Your task to perform on an android device: turn off smart reply in the gmail app Image 0: 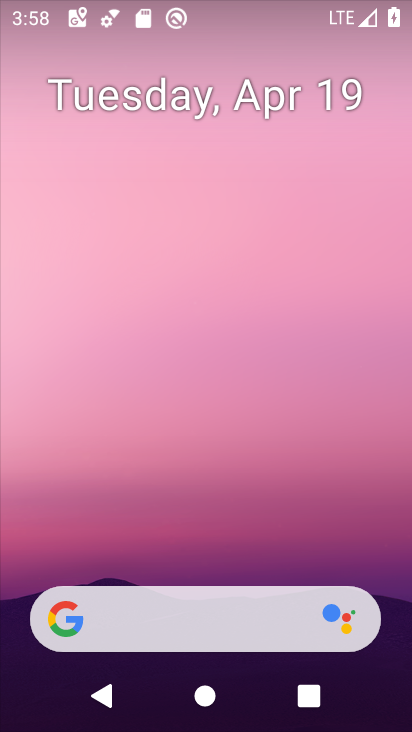
Step 0: drag from (226, 539) to (264, 179)
Your task to perform on an android device: turn off smart reply in the gmail app Image 1: 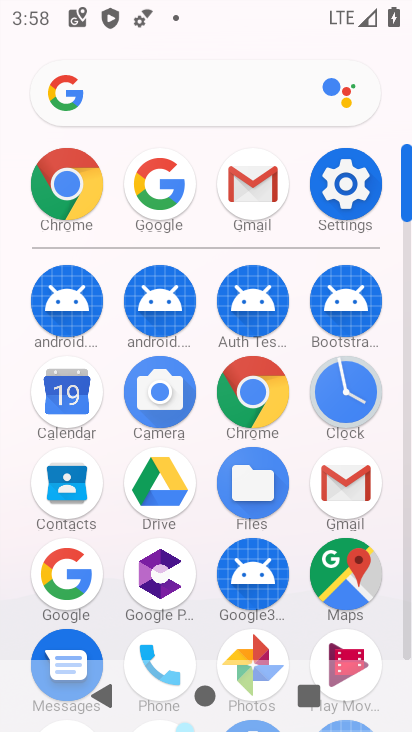
Step 1: click (252, 189)
Your task to perform on an android device: turn off smart reply in the gmail app Image 2: 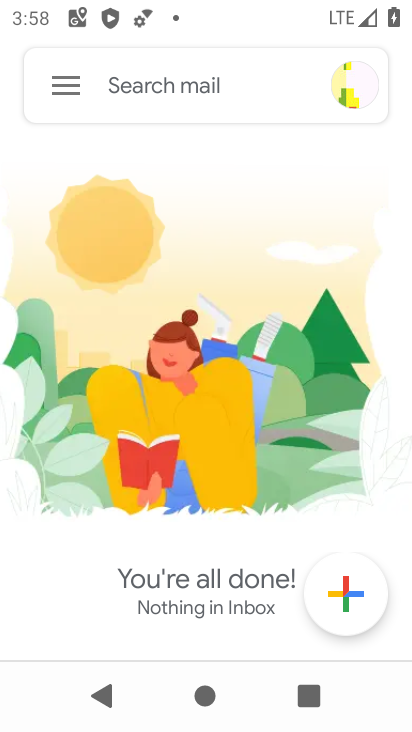
Step 2: click (67, 80)
Your task to perform on an android device: turn off smart reply in the gmail app Image 3: 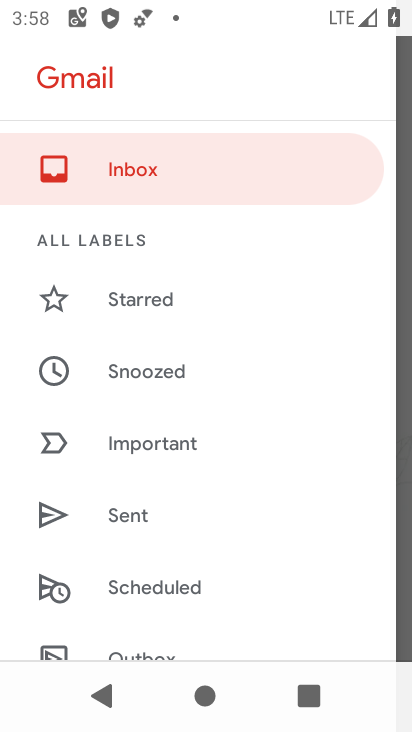
Step 3: drag from (191, 536) to (231, 349)
Your task to perform on an android device: turn off smart reply in the gmail app Image 4: 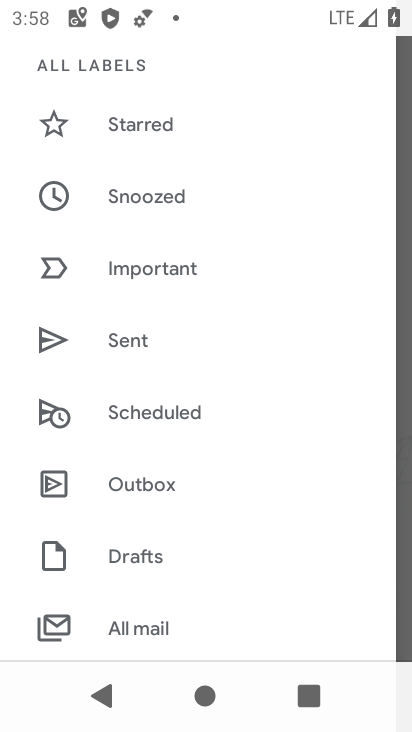
Step 4: drag from (167, 522) to (211, 420)
Your task to perform on an android device: turn off smart reply in the gmail app Image 5: 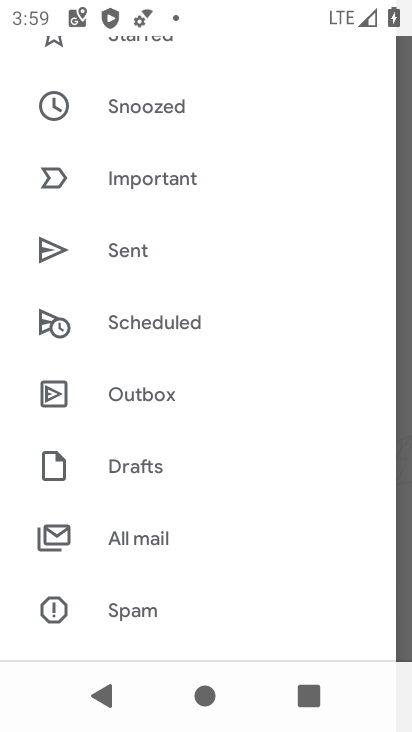
Step 5: drag from (156, 512) to (203, 400)
Your task to perform on an android device: turn off smart reply in the gmail app Image 6: 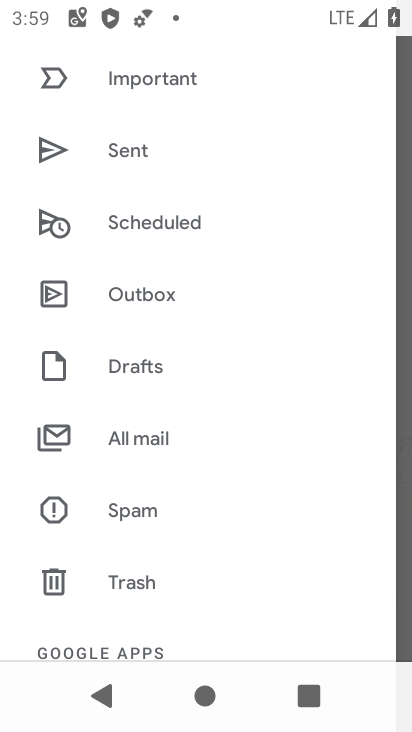
Step 6: drag from (140, 497) to (194, 418)
Your task to perform on an android device: turn off smart reply in the gmail app Image 7: 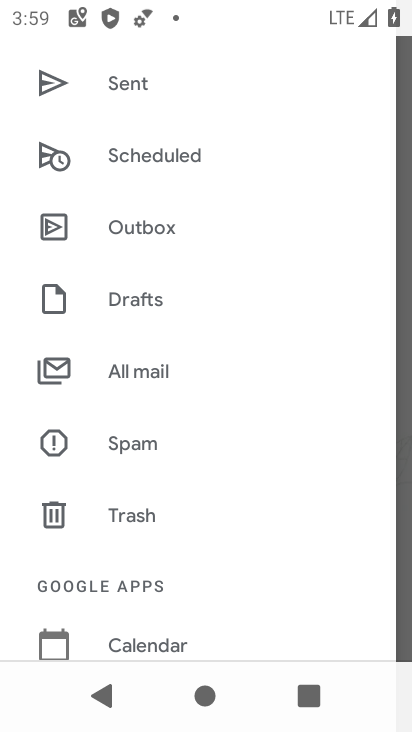
Step 7: drag from (138, 482) to (189, 409)
Your task to perform on an android device: turn off smart reply in the gmail app Image 8: 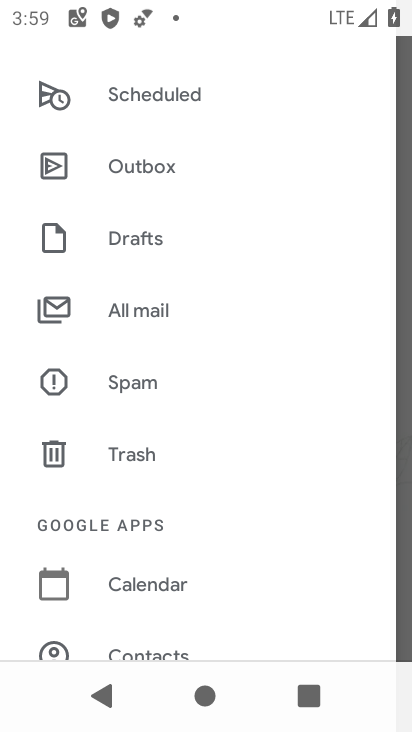
Step 8: drag from (125, 486) to (200, 392)
Your task to perform on an android device: turn off smart reply in the gmail app Image 9: 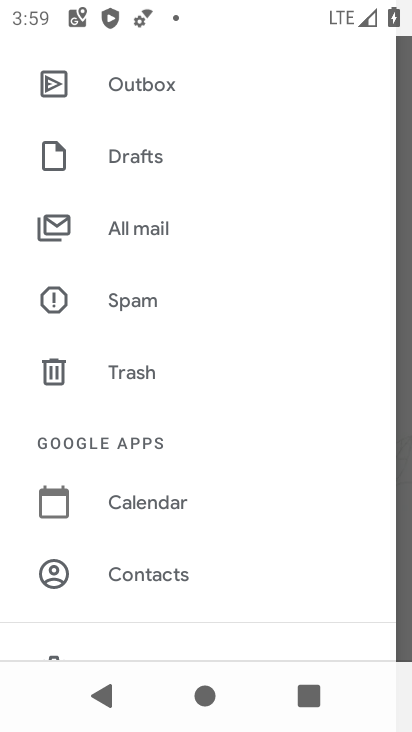
Step 9: drag from (150, 471) to (215, 399)
Your task to perform on an android device: turn off smart reply in the gmail app Image 10: 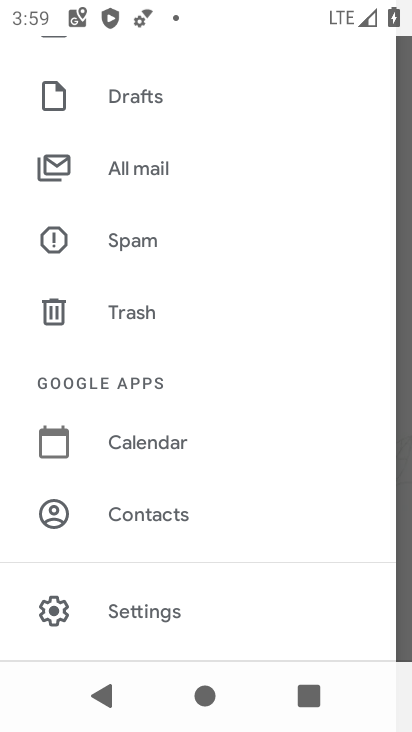
Step 10: click (140, 616)
Your task to perform on an android device: turn off smart reply in the gmail app Image 11: 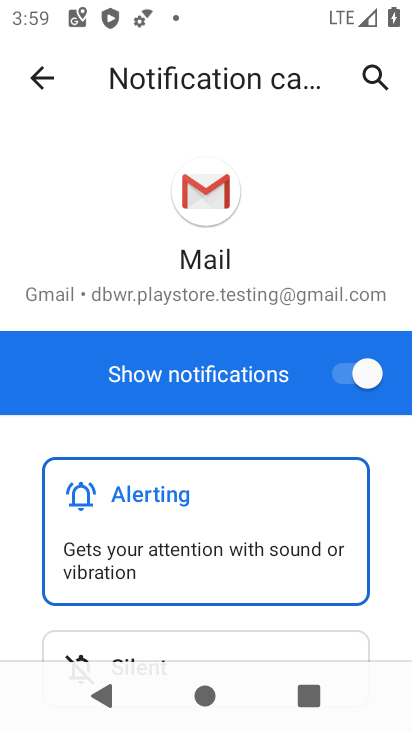
Step 11: press back button
Your task to perform on an android device: turn off smart reply in the gmail app Image 12: 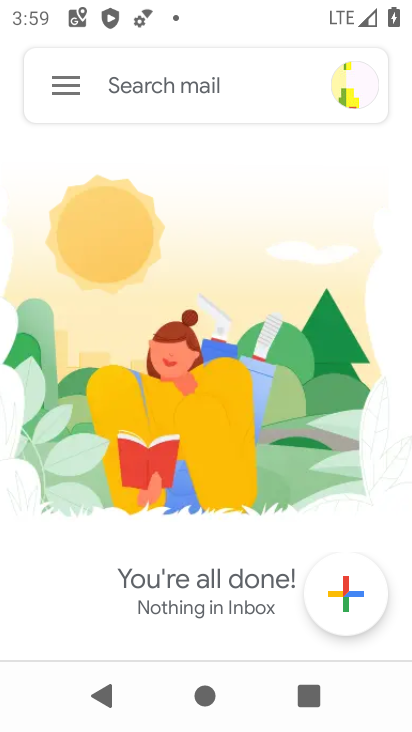
Step 12: click (74, 86)
Your task to perform on an android device: turn off smart reply in the gmail app Image 13: 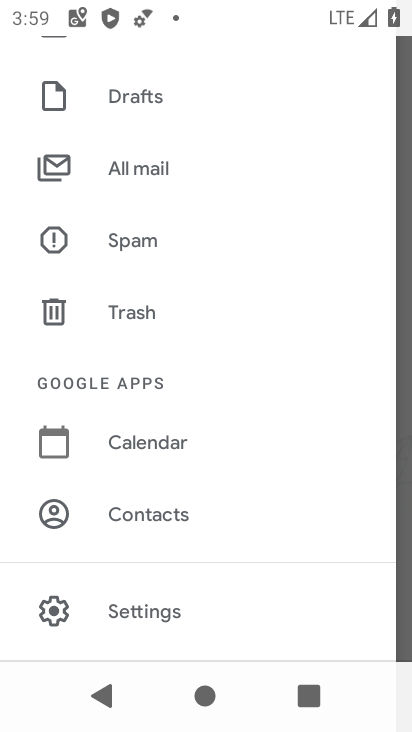
Step 13: click (140, 609)
Your task to perform on an android device: turn off smart reply in the gmail app Image 14: 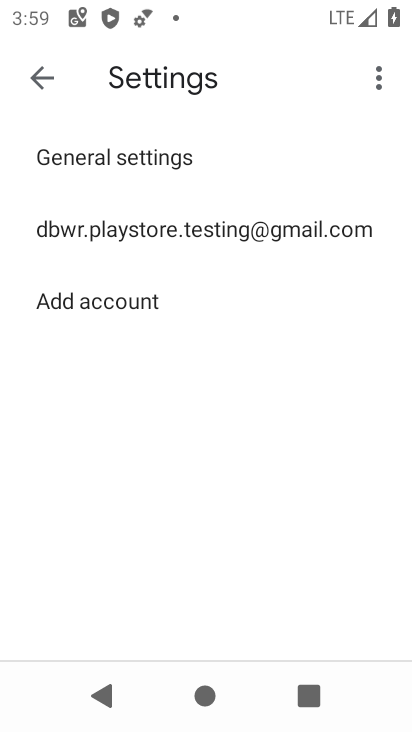
Step 14: click (144, 232)
Your task to perform on an android device: turn off smart reply in the gmail app Image 15: 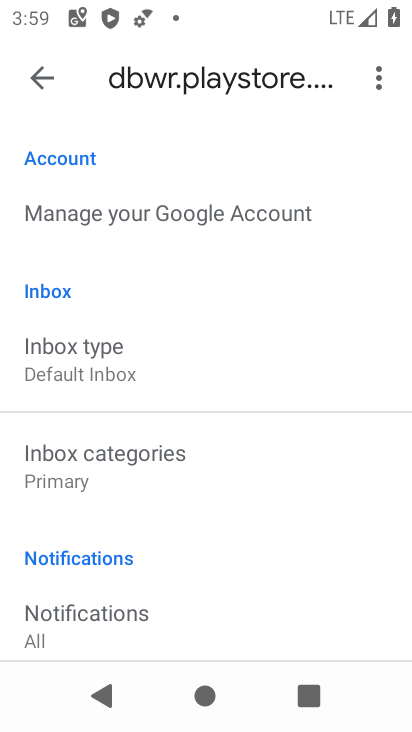
Step 15: drag from (143, 551) to (225, 397)
Your task to perform on an android device: turn off smart reply in the gmail app Image 16: 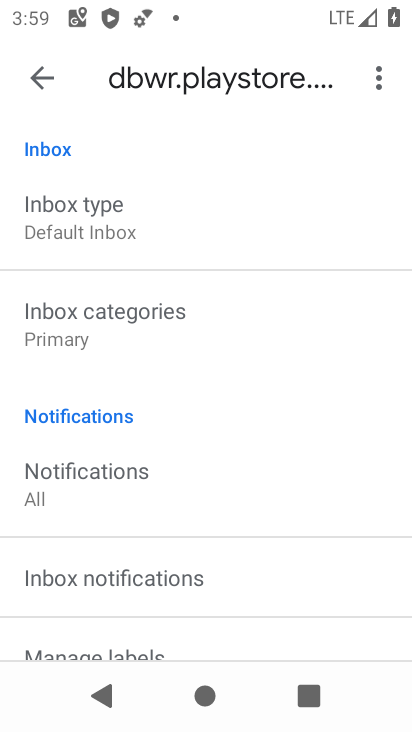
Step 16: drag from (163, 538) to (215, 435)
Your task to perform on an android device: turn off smart reply in the gmail app Image 17: 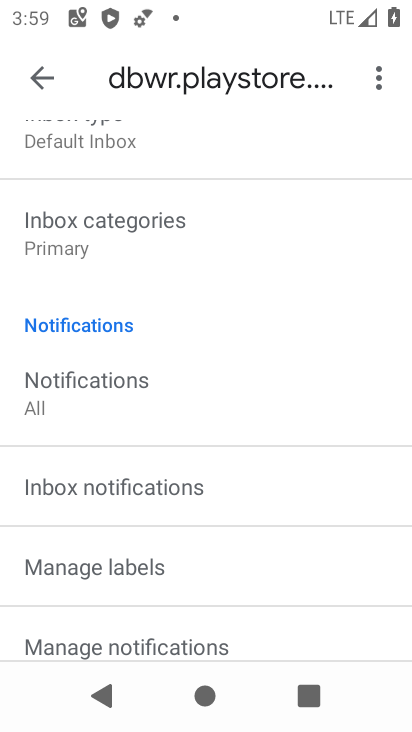
Step 17: drag from (165, 557) to (209, 462)
Your task to perform on an android device: turn off smart reply in the gmail app Image 18: 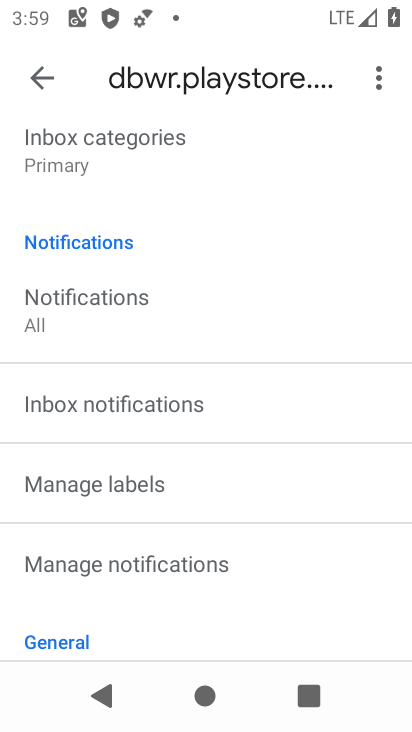
Step 18: drag from (149, 531) to (219, 435)
Your task to perform on an android device: turn off smart reply in the gmail app Image 19: 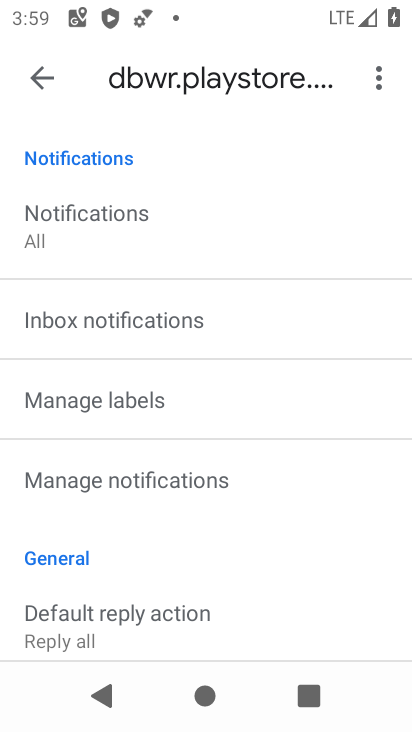
Step 19: drag from (147, 544) to (221, 434)
Your task to perform on an android device: turn off smart reply in the gmail app Image 20: 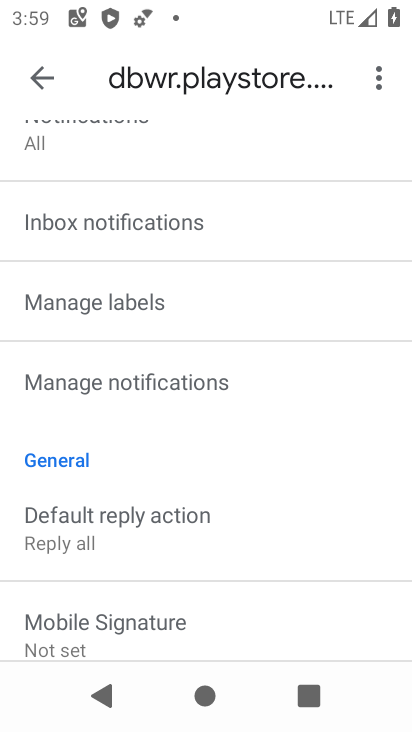
Step 20: drag from (156, 568) to (241, 466)
Your task to perform on an android device: turn off smart reply in the gmail app Image 21: 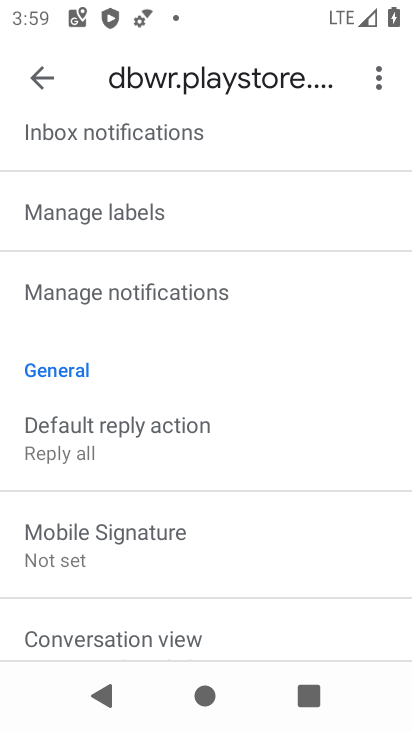
Step 21: drag from (151, 591) to (228, 474)
Your task to perform on an android device: turn off smart reply in the gmail app Image 22: 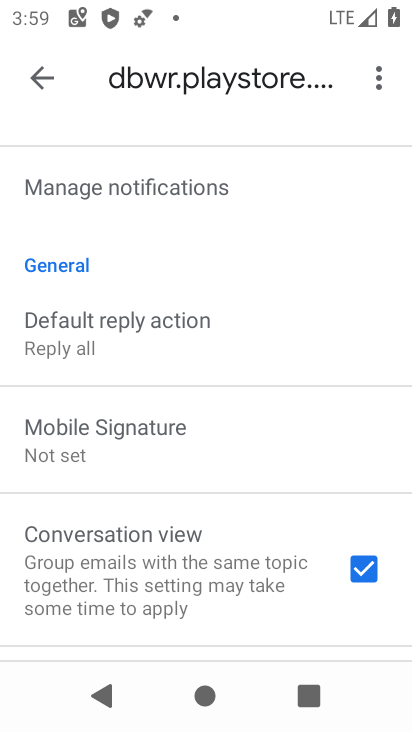
Step 22: drag from (134, 511) to (227, 403)
Your task to perform on an android device: turn off smart reply in the gmail app Image 23: 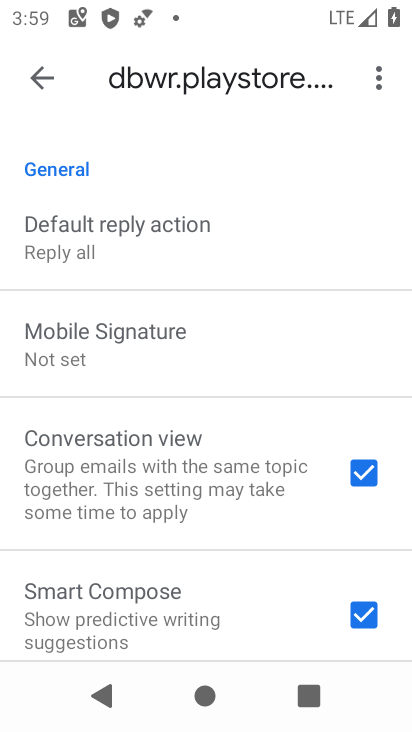
Step 23: drag from (130, 610) to (252, 447)
Your task to perform on an android device: turn off smart reply in the gmail app Image 24: 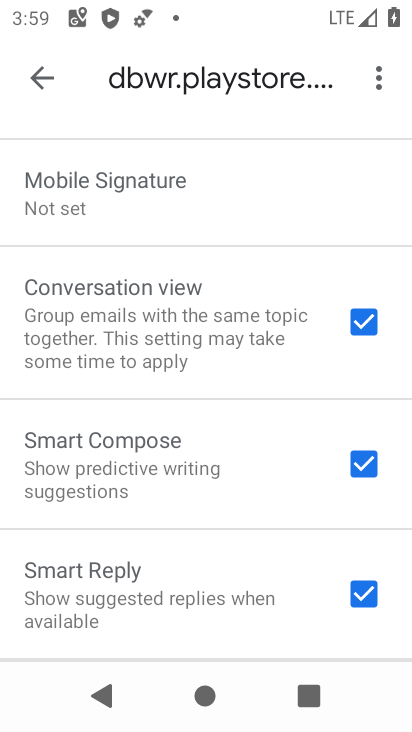
Step 24: drag from (152, 606) to (253, 471)
Your task to perform on an android device: turn off smart reply in the gmail app Image 25: 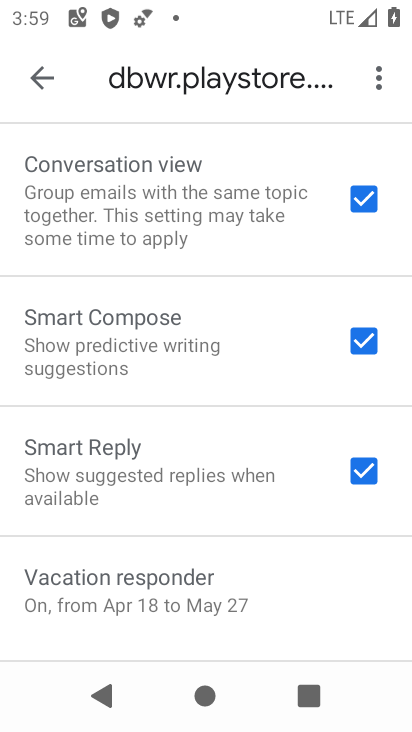
Step 25: click (367, 471)
Your task to perform on an android device: turn off smart reply in the gmail app Image 26: 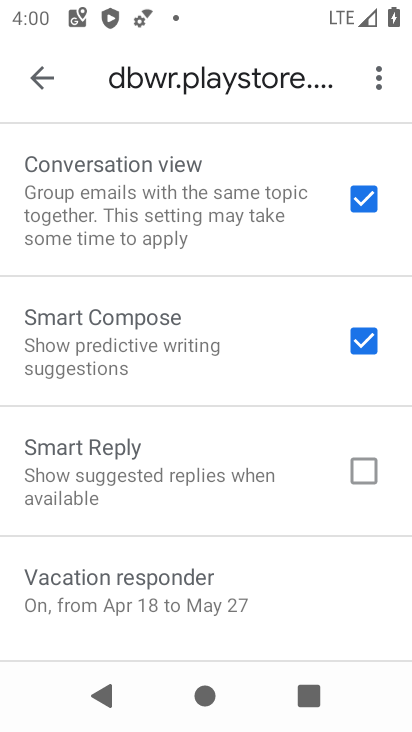
Step 26: task complete